Your task to perform on an android device: stop showing notifications on the lock screen Image 0: 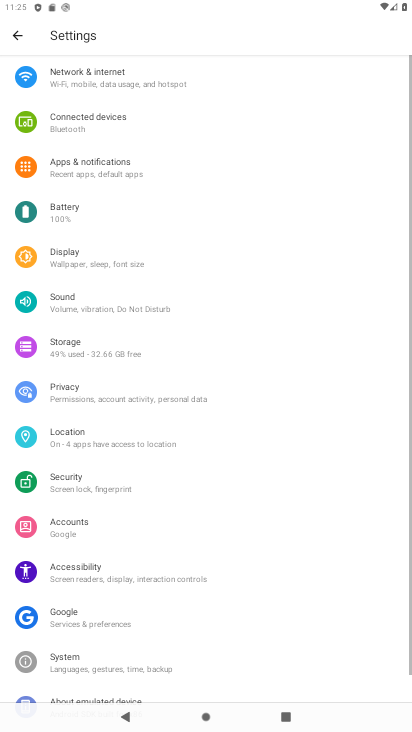
Step 0: press home button
Your task to perform on an android device: stop showing notifications on the lock screen Image 1: 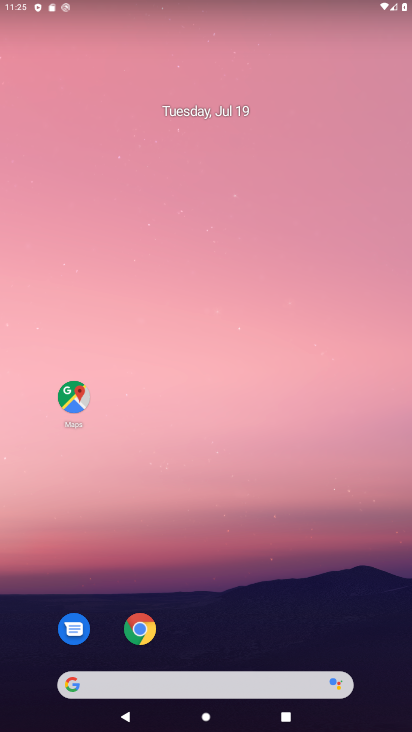
Step 1: drag from (290, 522) to (135, 15)
Your task to perform on an android device: stop showing notifications on the lock screen Image 2: 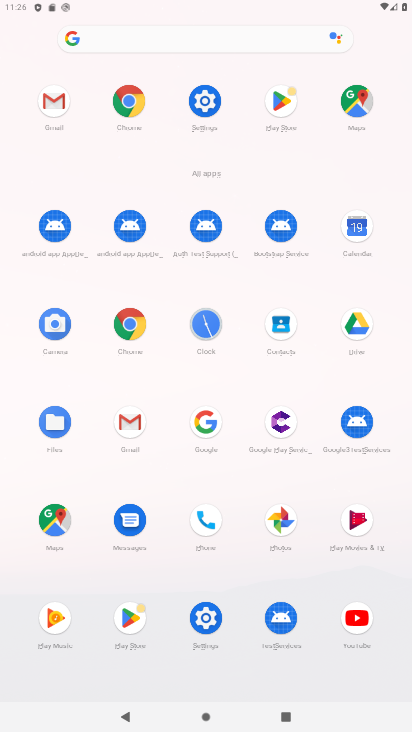
Step 2: click (48, 107)
Your task to perform on an android device: stop showing notifications on the lock screen Image 3: 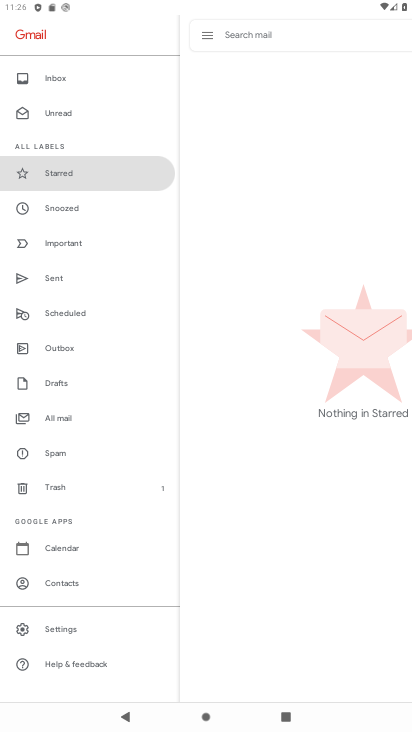
Step 3: click (63, 632)
Your task to perform on an android device: stop showing notifications on the lock screen Image 4: 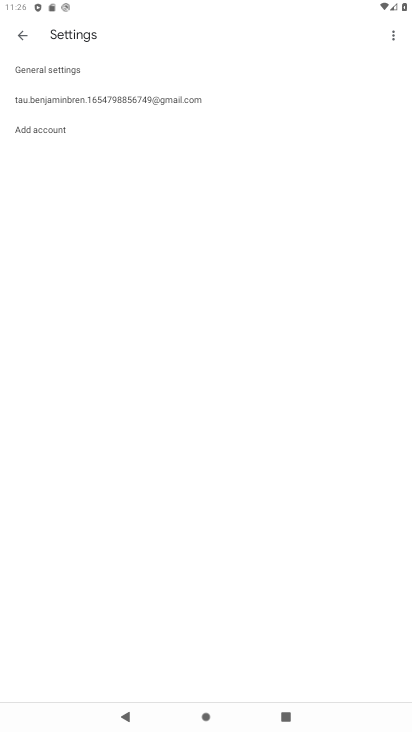
Step 4: click (64, 94)
Your task to perform on an android device: stop showing notifications on the lock screen Image 5: 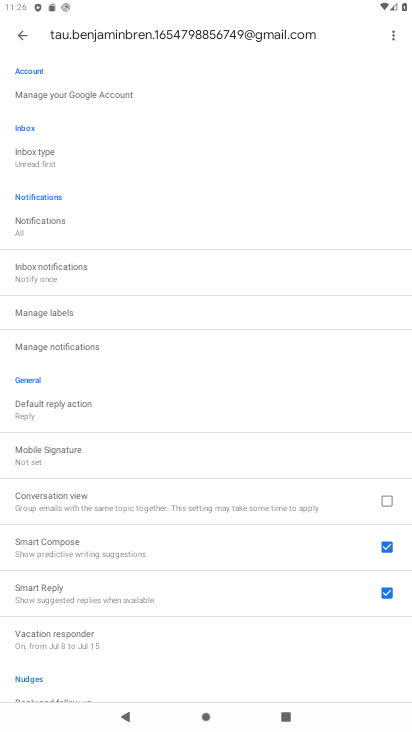
Step 5: click (34, 223)
Your task to perform on an android device: stop showing notifications on the lock screen Image 6: 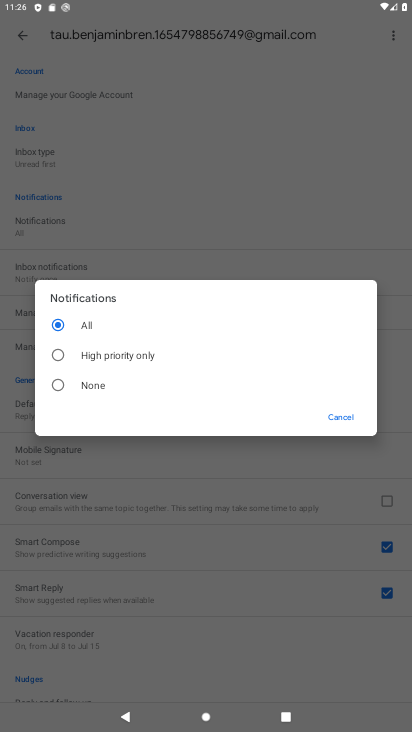
Step 6: click (78, 389)
Your task to perform on an android device: stop showing notifications on the lock screen Image 7: 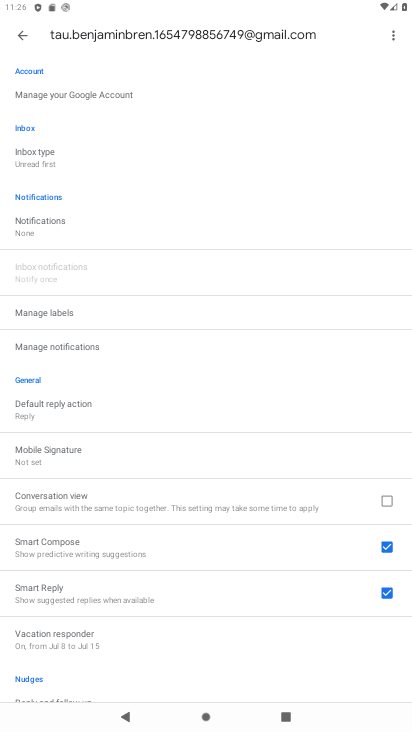
Step 7: task complete